Your task to perform on an android device: turn off translation in the chrome app Image 0: 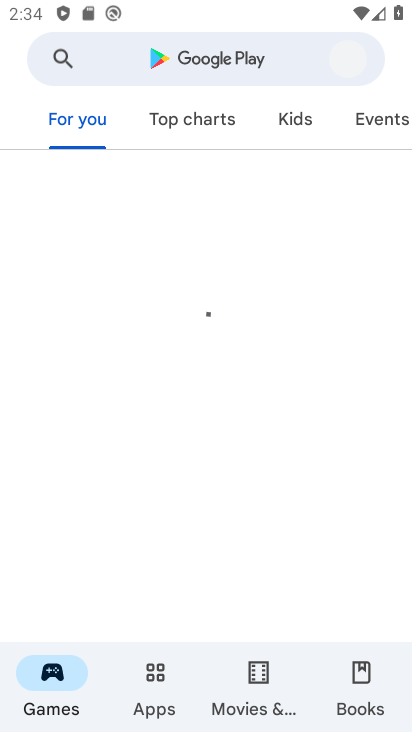
Step 0: press home button
Your task to perform on an android device: turn off translation in the chrome app Image 1: 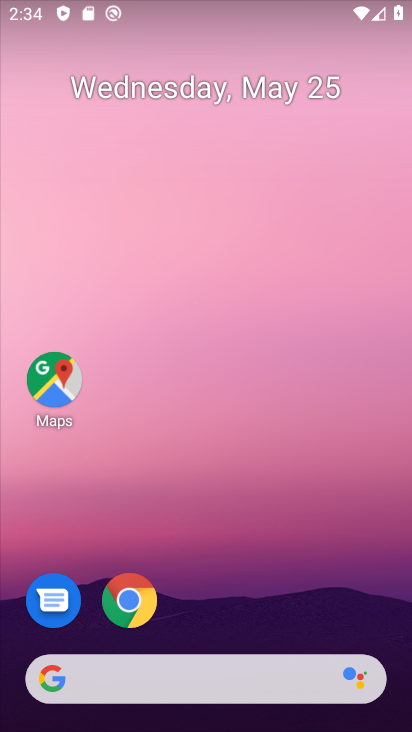
Step 1: click (125, 596)
Your task to perform on an android device: turn off translation in the chrome app Image 2: 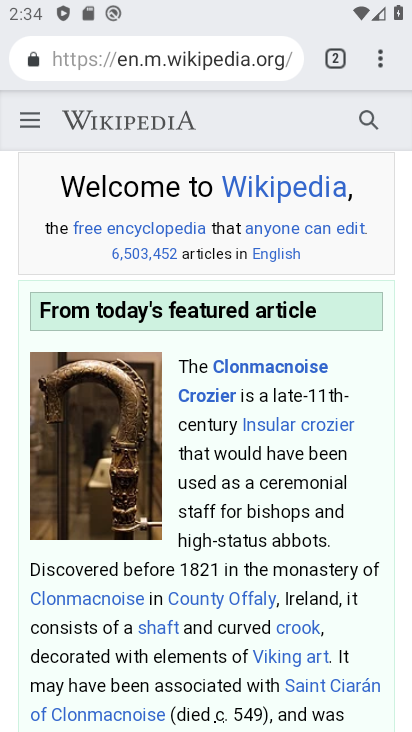
Step 2: click (376, 60)
Your task to perform on an android device: turn off translation in the chrome app Image 3: 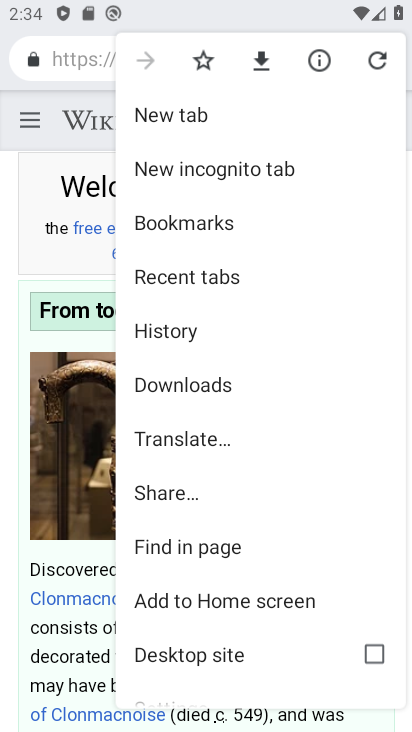
Step 3: drag from (155, 674) to (273, 120)
Your task to perform on an android device: turn off translation in the chrome app Image 4: 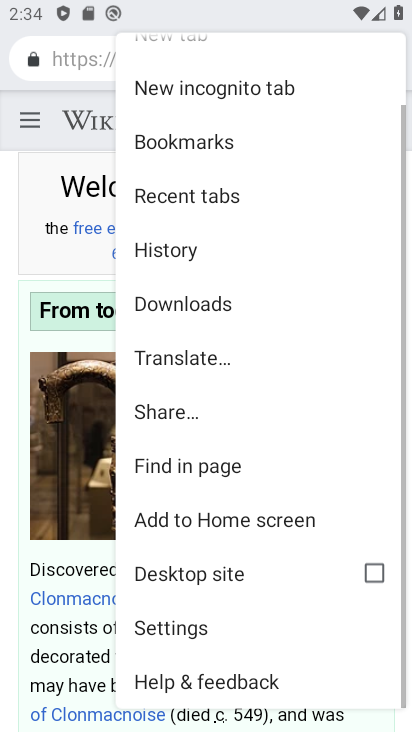
Step 4: click (172, 621)
Your task to perform on an android device: turn off translation in the chrome app Image 5: 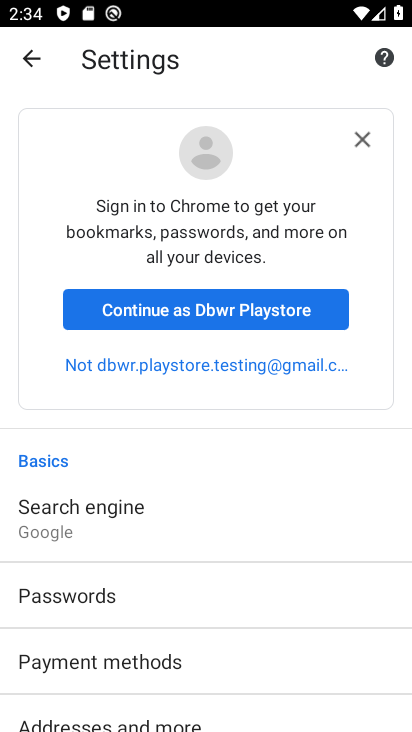
Step 5: click (359, 136)
Your task to perform on an android device: turn off translation in the chrome app Image 6: 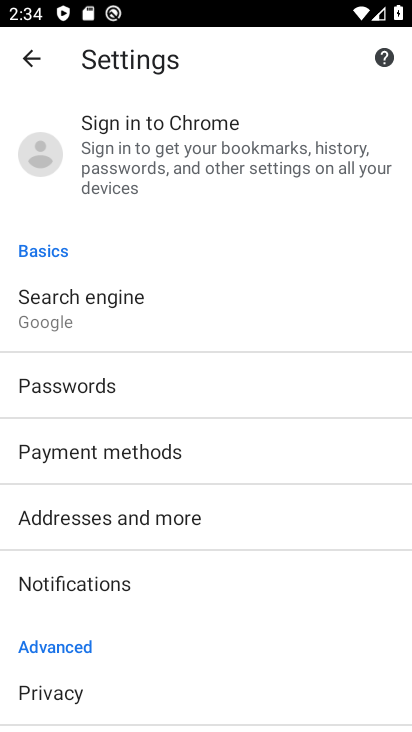
Step 6: drag from (51, 571) to (226, 147)
Your task to perform on an android device: turn off translation in the chrome app Image 7: 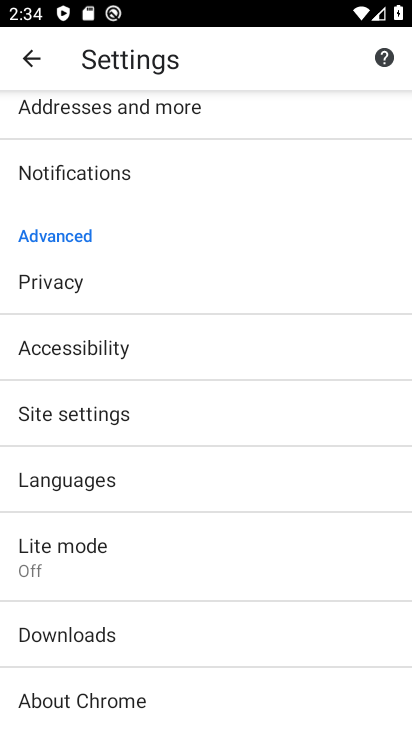
Step 7: click (119, 475)
Your task to perform on an android device: turn off translation in the chrome app Image 8: 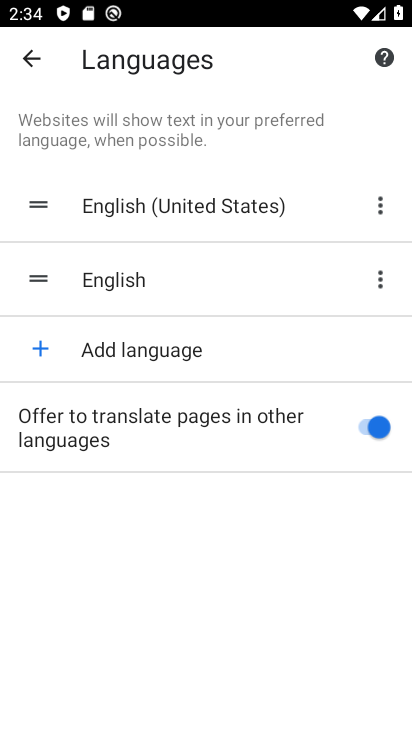
Step 8: click (377, 423)
Your task to perform on an android device: turn off translation in the chrome app Image 9: 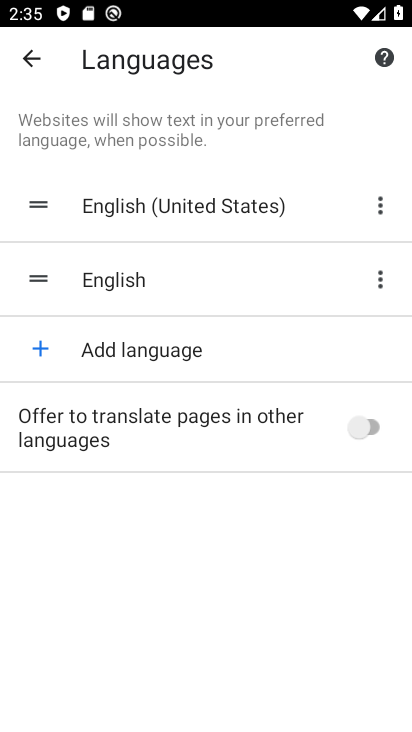
Step 9: task complete